Your task to perform on an android device: Open battery settings Image 0: 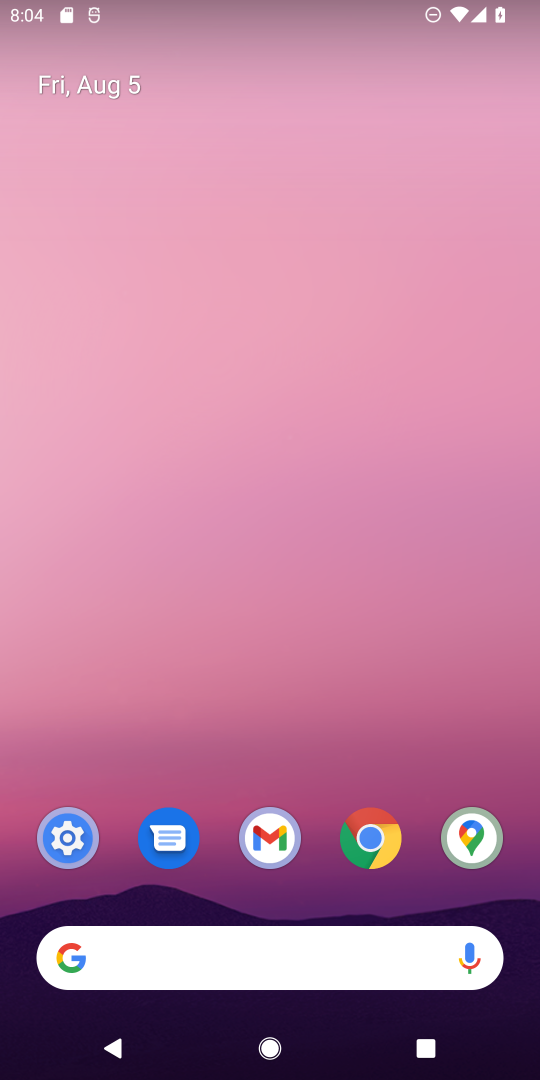
Step 0: drag from (227, 900) to (282, 320)
Your task to perform on an android device: Open battery settings Image 1: 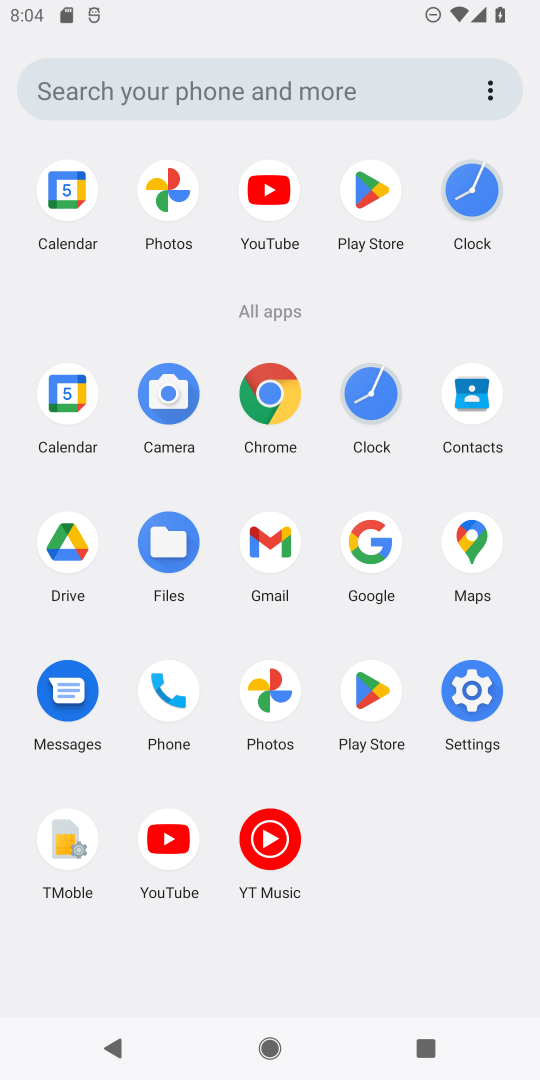
Step 1: click (469, 692)
Your task to perform on an android device: Open battery settings Image 2: 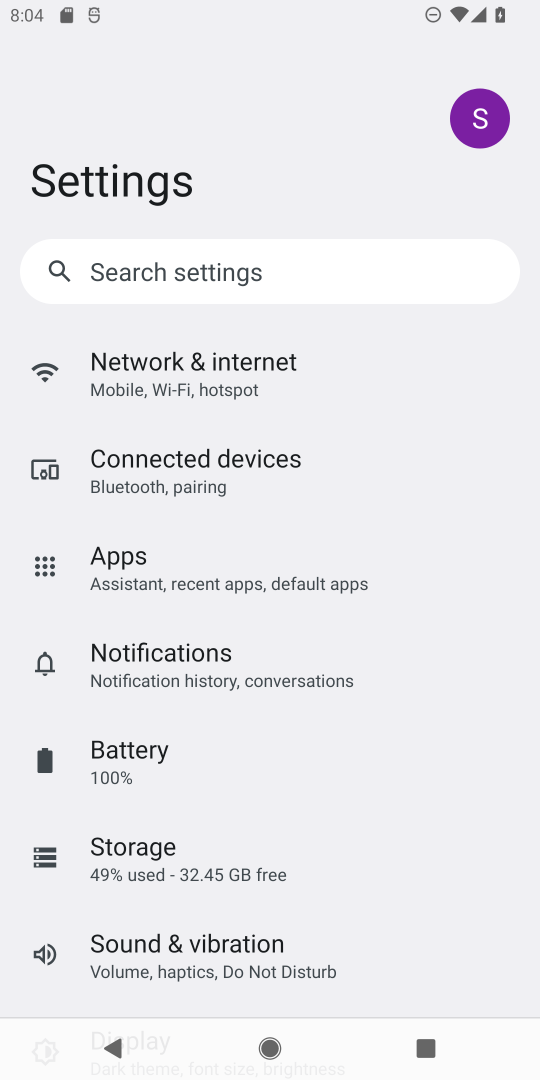
Step 2: click (142, 767)
Your task to perform on an android device: Open battery settings Image 3: 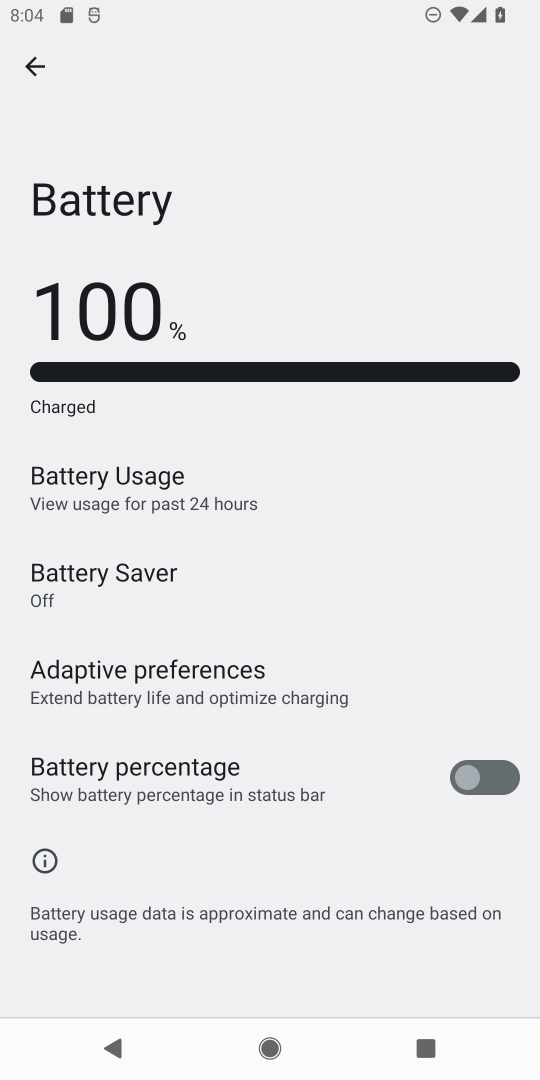
Step 3: task complete